Your task to perform on an android device: empty trash in google photos Image 0: 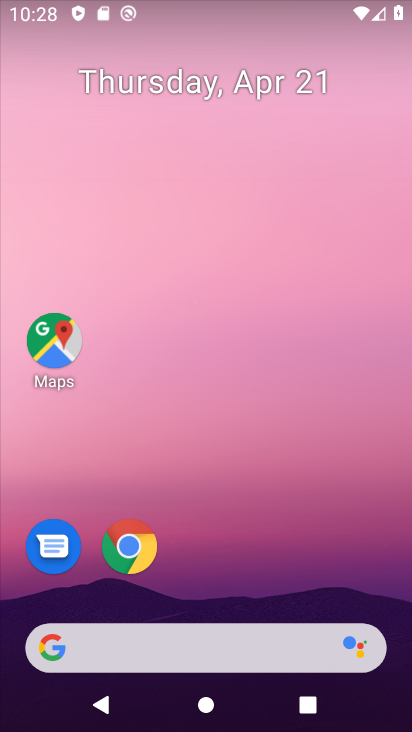
Step 0: drag from (290, 564) to (299, 124)
Your task to perform on an android device: empty trash in google photos Image 1: 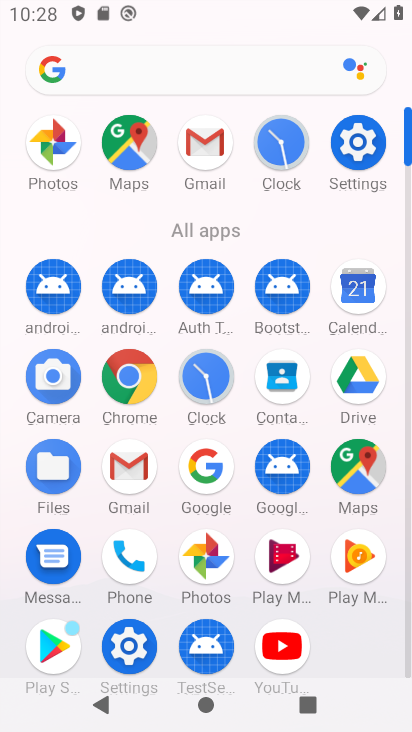
Step 1: click (212, 554)
Your task to perform on an android device: empty trash in google photos Image 2: 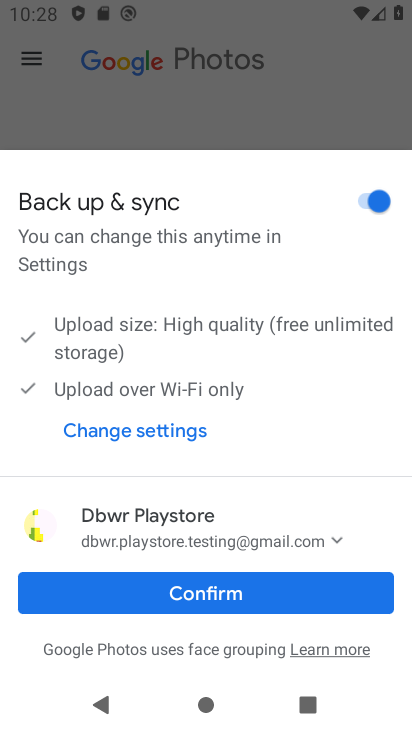
Step 2: click (227, 596)
Your task to perform on an android device: empty trash in google photos Image 3: 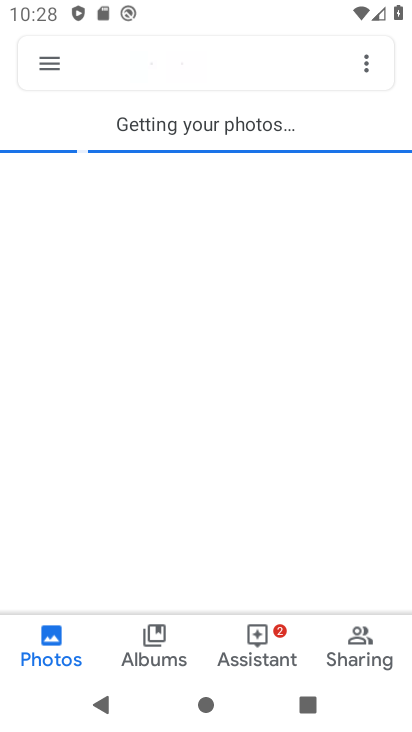
Step 3: click (31, 62)
Your task to perform on an android device: empty trash in google photos Image 4: 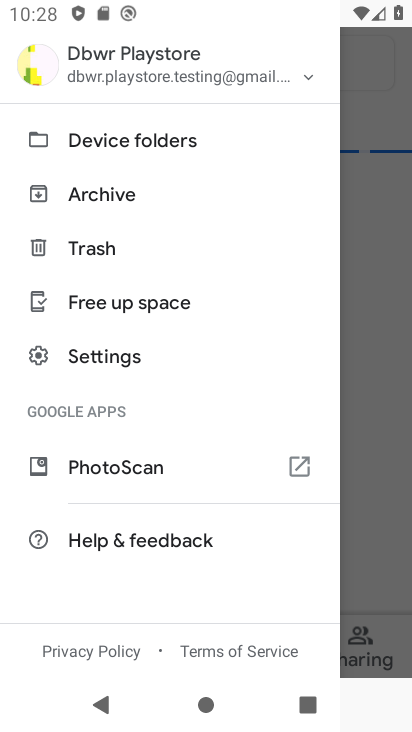
Step 4: click (107, 247)
Your task to perform on an android device: empty trash in google photos Image 5: 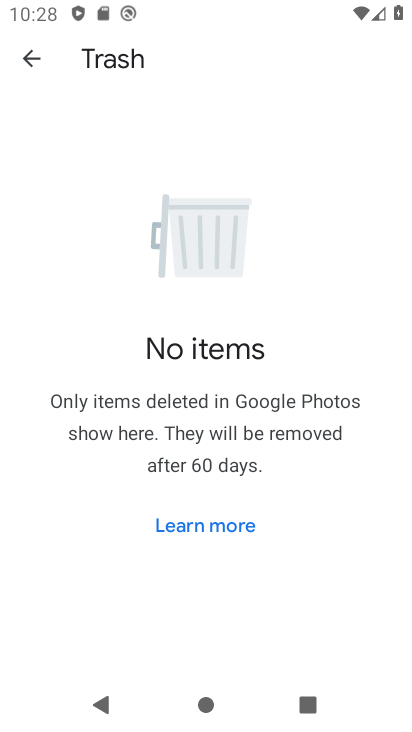
Step 5: task complete